Your task to perform on an android device: open chrome and create a bookmark for the current page Image 0: 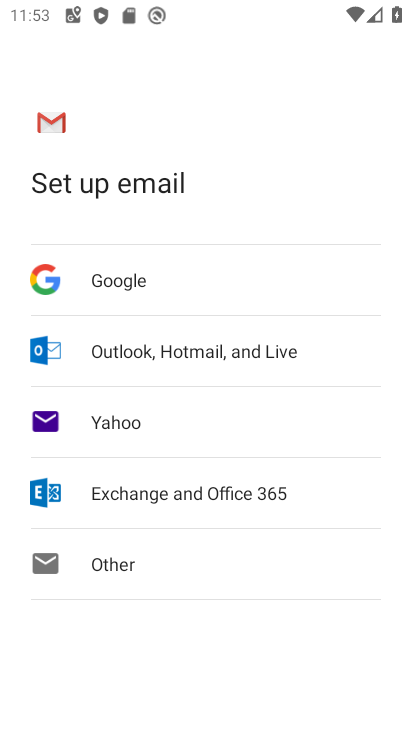
Step 0: press home button
Your task to perform on an android device: open chrome and create a bookmark for the current page Image 1: 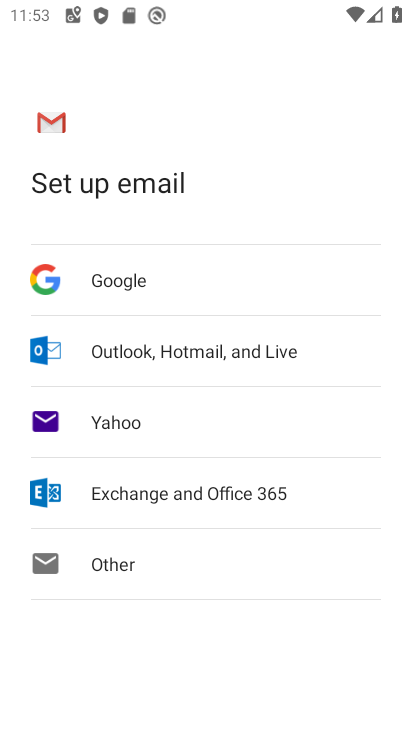
Step 1: press home button
Your task to perform on an android device: open chrome and create a bookmark for the current page Image 2: 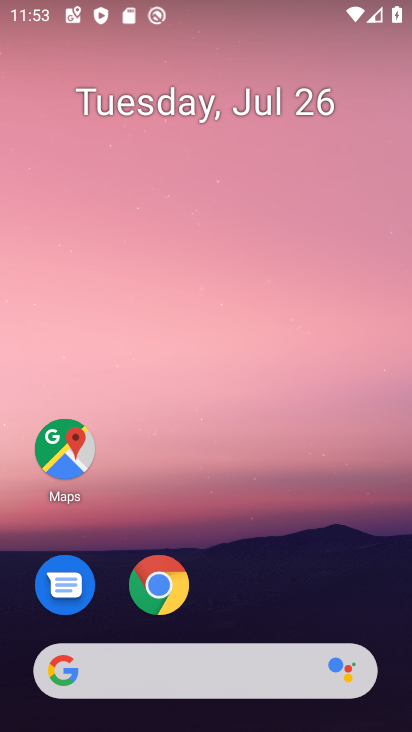
Step 2: click (165, 584)
Your task to perform on an android device: open chrome and create a bookmark for the current page Image 3: 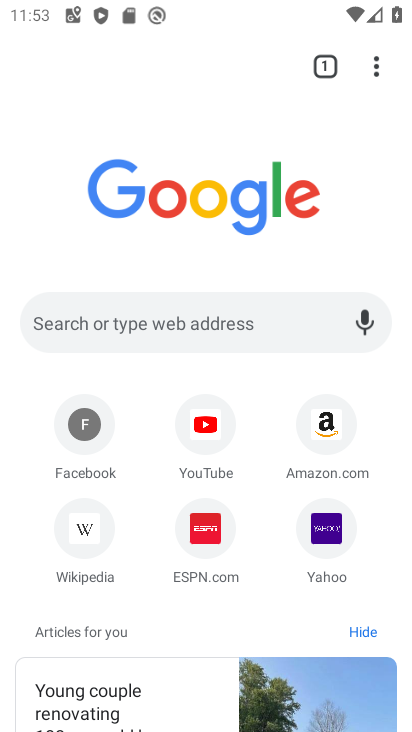
Step 3: click (375, 63)
Your task to perform on an android device: open chrome and create a bookmark for the current page Image 4: 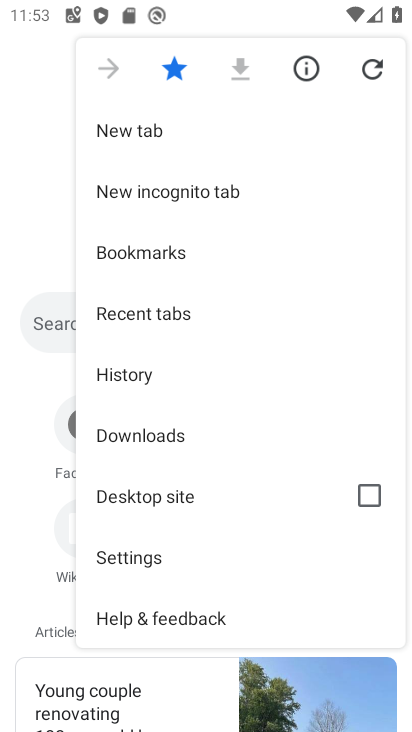
Step 4: task complete